Your task to perform on an android device: When is my next meeting? Image 0: 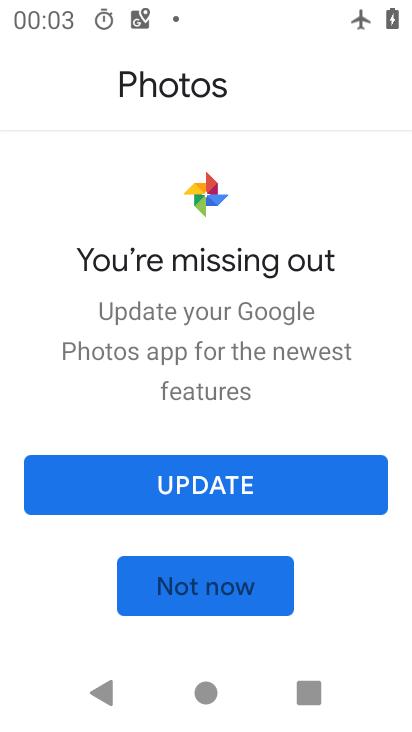
Step 0: press home button
Your task to perform on an android device: When is my next meeting? Image 1: 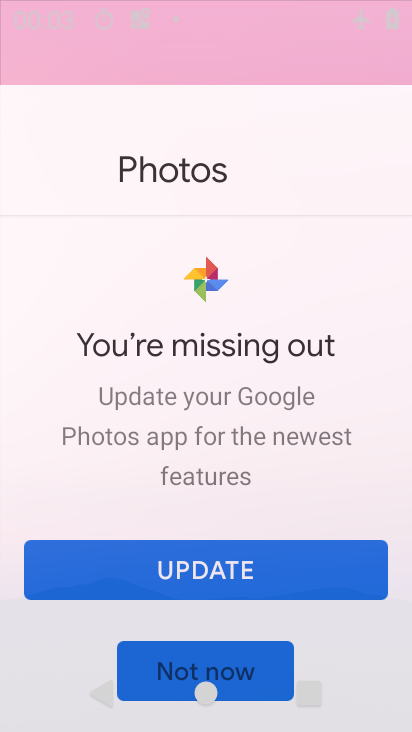
Step 1: press home button
Your task to perform on an android device: When is my next meeting? Image 2: 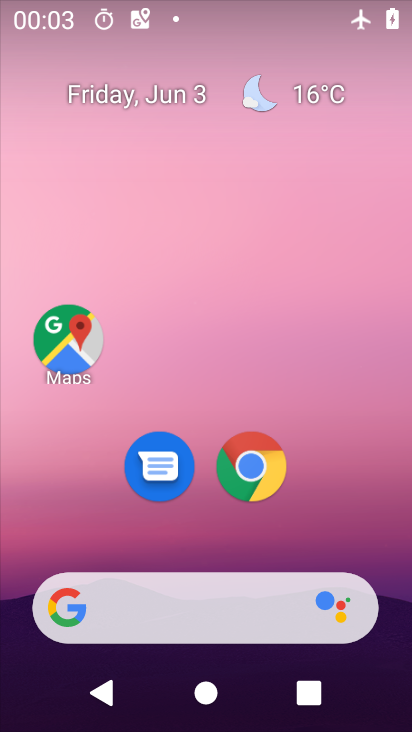
Step 2: drag from (221, 539) to (220, 198)
Your task to perform on an android device: When is my next meeting? Image 3: 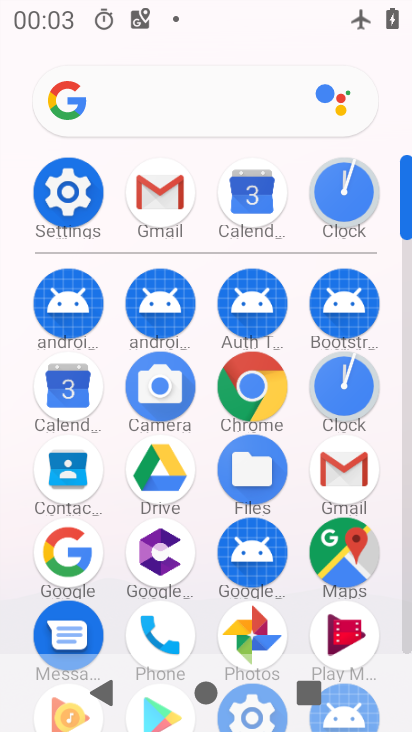
Step 3: click (56, 405)
Your task to perform on an android device: When is my next meeting? Image 4: 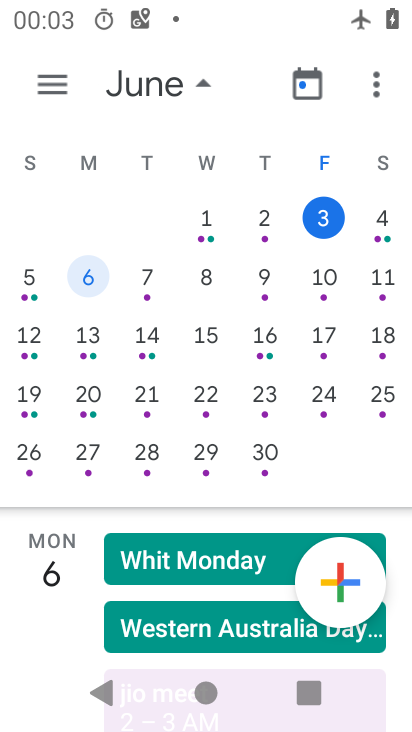
Step 4: drag from (183, 417) to (196, 239)
Your task to perform on an android device: When is my next meeting? Image 5: 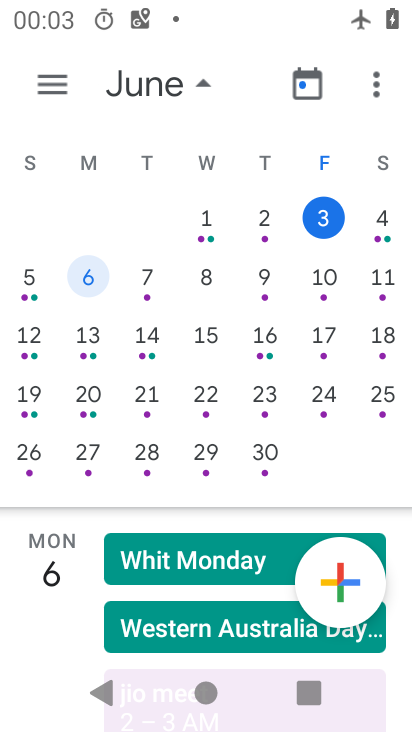
Step 5: drag from (163, 602) to (177, 233)
Your task to perform on an android device: When is my next meeting? Image 6: 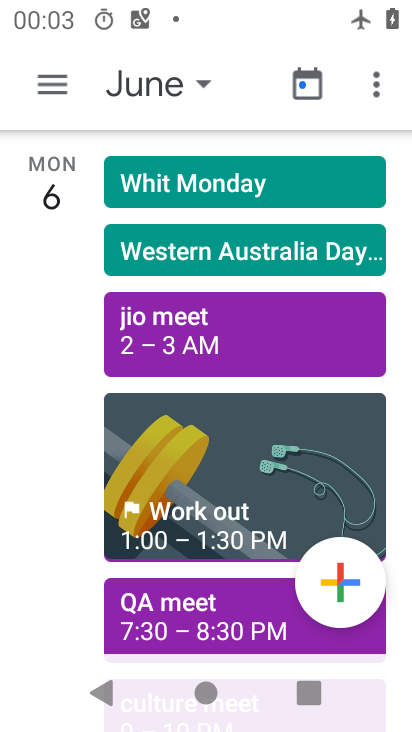
Step 6: drag from (195, 552) to (199, 261)
Your task to perform on an android device: When is my next meeting? Image 7: 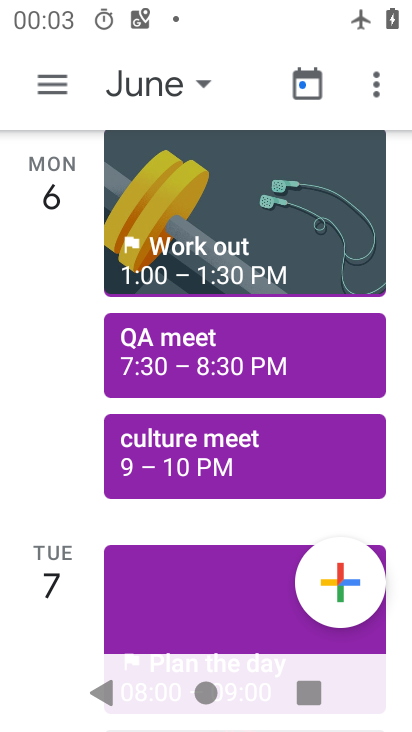
Step 7: drag from (209, 487) to (219, 261)
Your task to perform on an android device: When is my next meeting? Image 8: 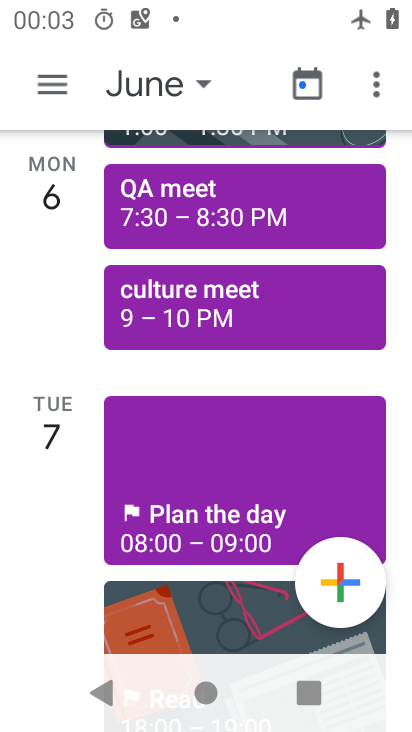
Step 8: drag from (229, 532) to (232, 253)
Your task to perform on an android device: When is my next meeting? Image 9: 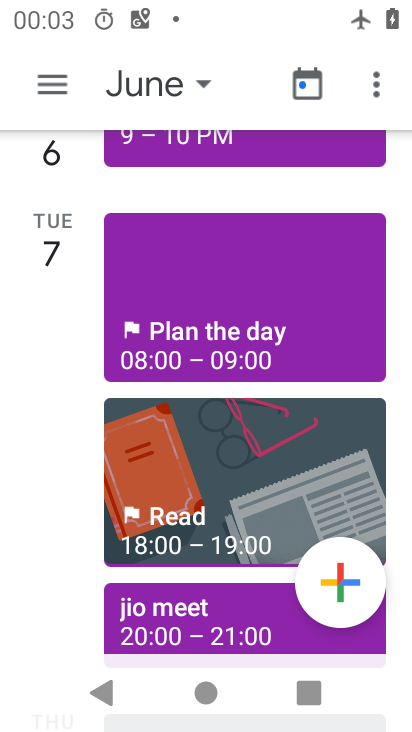
Step 9: drag from (217, 599) to (232, 409)
Your task to perform on an android device: When is my next meeting? Image 10: 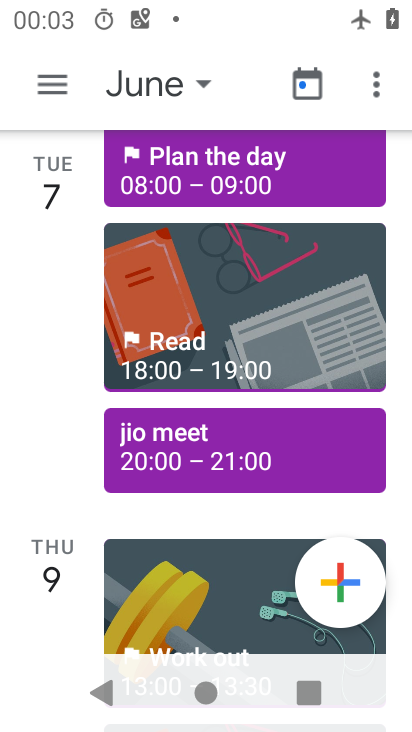
Step 10: drag from (232, 511) to (243, 407)
Your task to perform on an android device: When is my next meeting? Image 11: 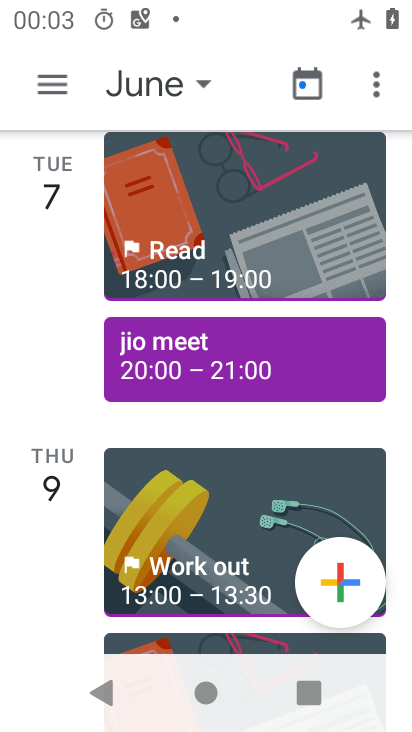
Step 11: click (215, 366)
Your task to perform on an android device: When is my next meeting? Image 12: 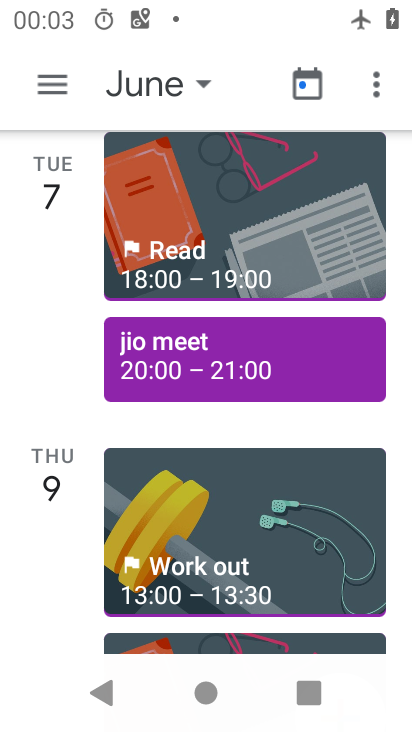
Step 12: task complete